Your task to perform on an android device: Open Youtube and go to "Your channel" Image 0: 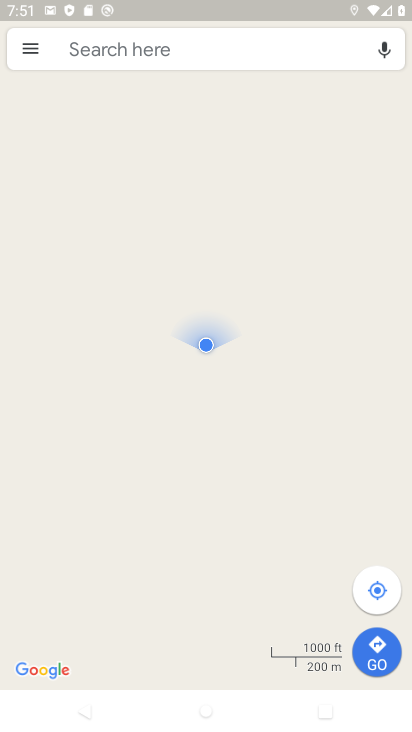
Step 0: press home button
Your task to perform on an android device: Open Youtube and go to "Your channel" Image 1: 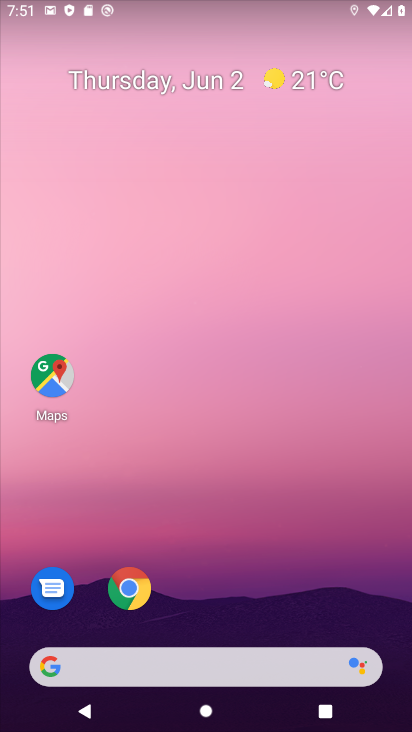
Step 1: drag from (241, 661) to (245, 55)
Your task to perform on an android device: Open Youtube and go to "Your channel" Image 2: 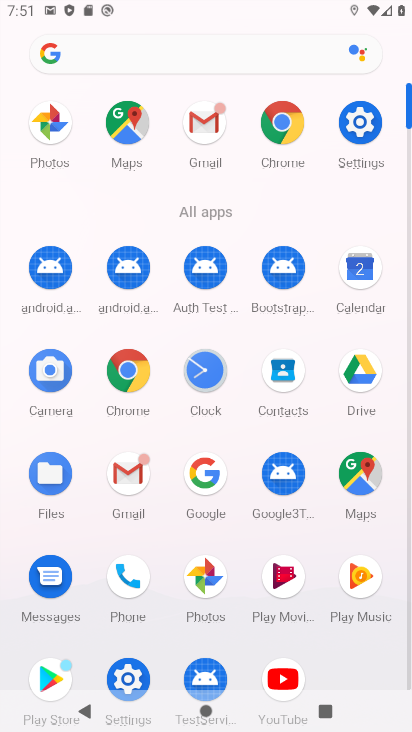
Step 2: click (279, 671)
Your task to perform on an android device: Open Youtube and go to "Your channel" Image 3: 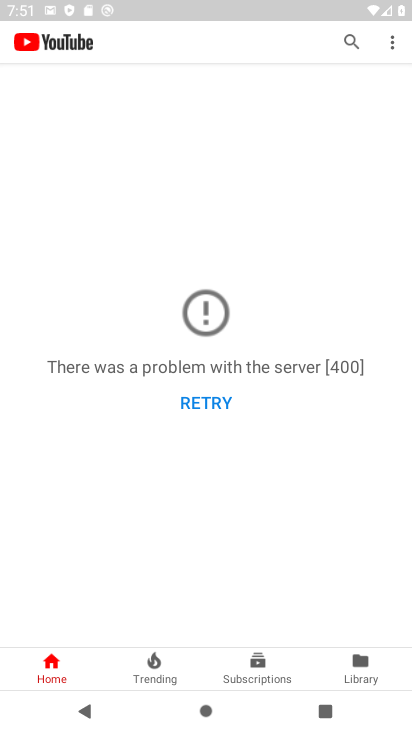
Step 3: task complete